Your task to perform on an android device: uninstall "Pinterest" Image 0: 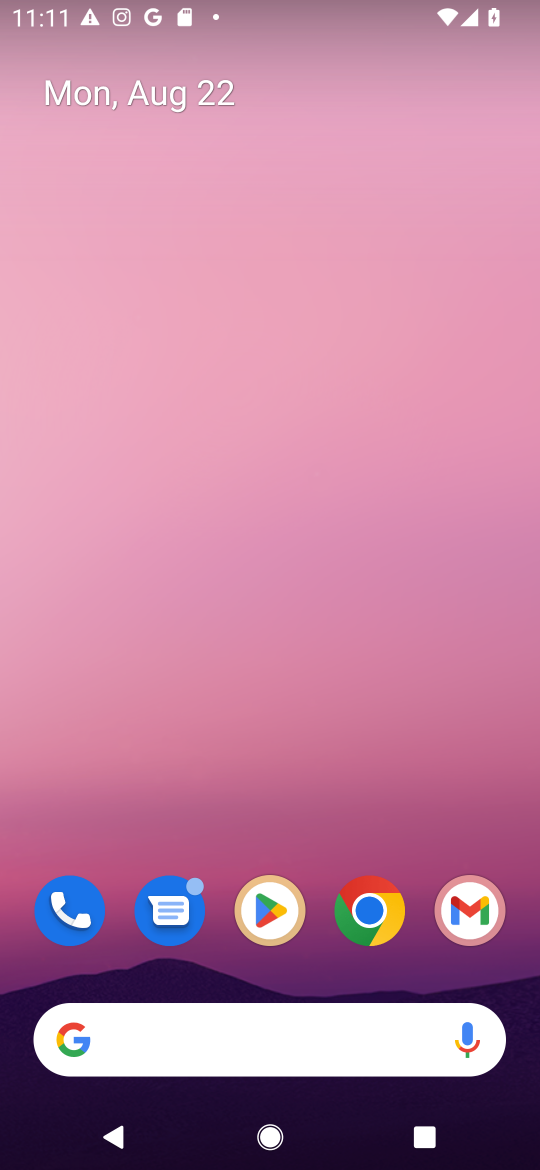
Step 0: click (246, 924)
Your task to perform on an android device: uninstall "Pinterest" Image 1: 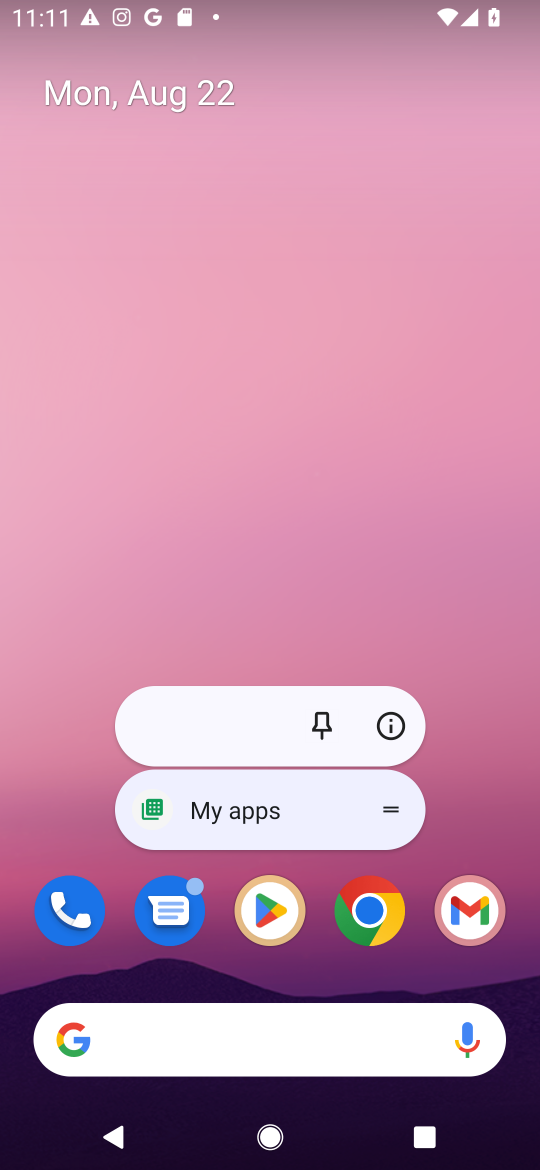
Step 1: click (272, 924)
Your task to perform on an android device: uninstall "Pinterest" Image 2: 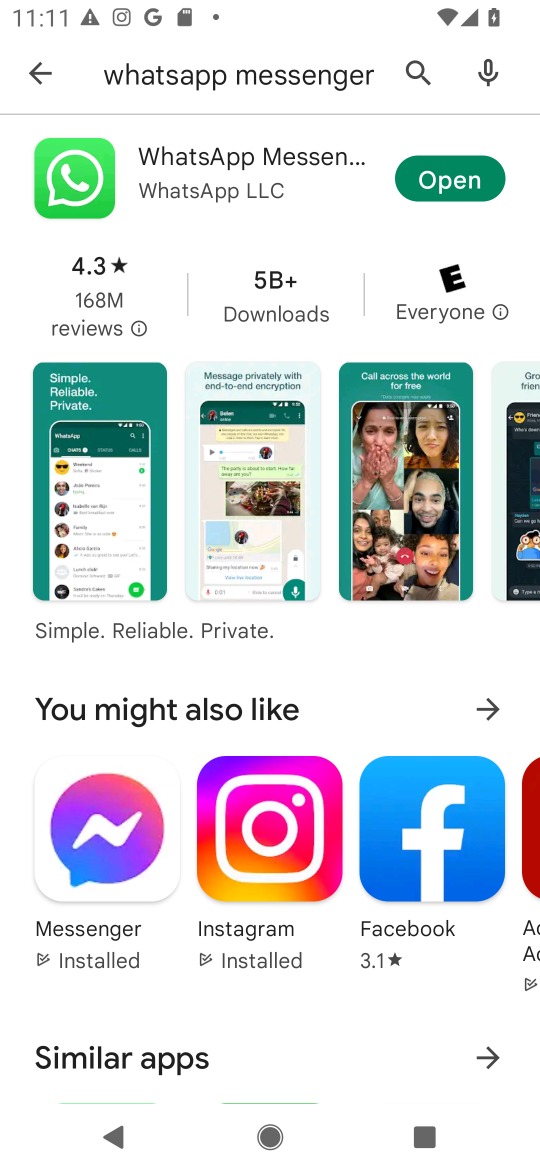
Step 2: click (415, 68)
Your task to perform on an android device: uninstall "Pinterest" Image 3: 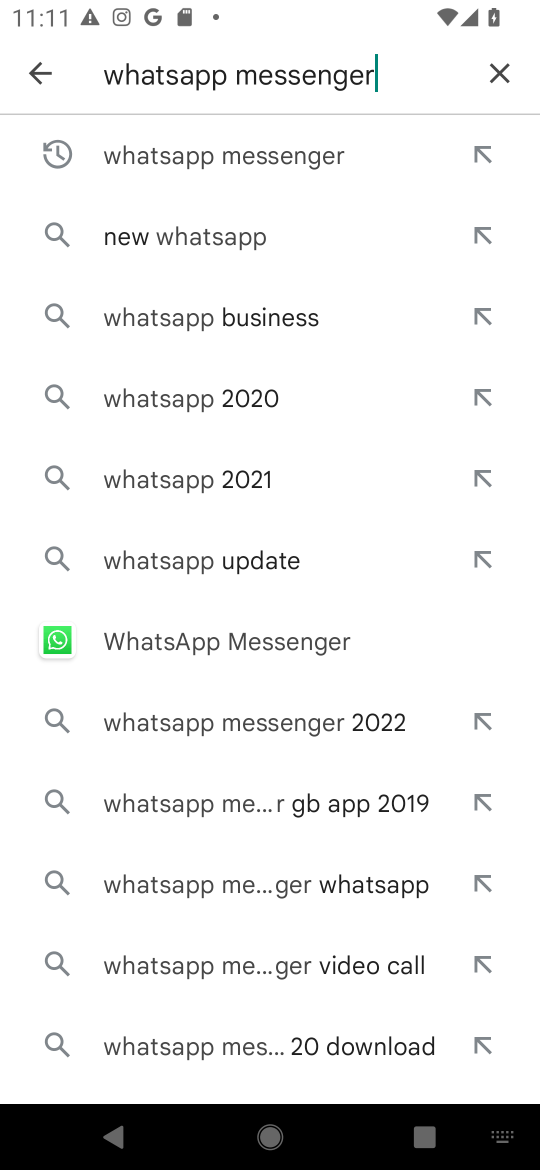
Step 3: click (488, 68)
Your task to perform on an android device: uninstall "Pinterest" Image 4: 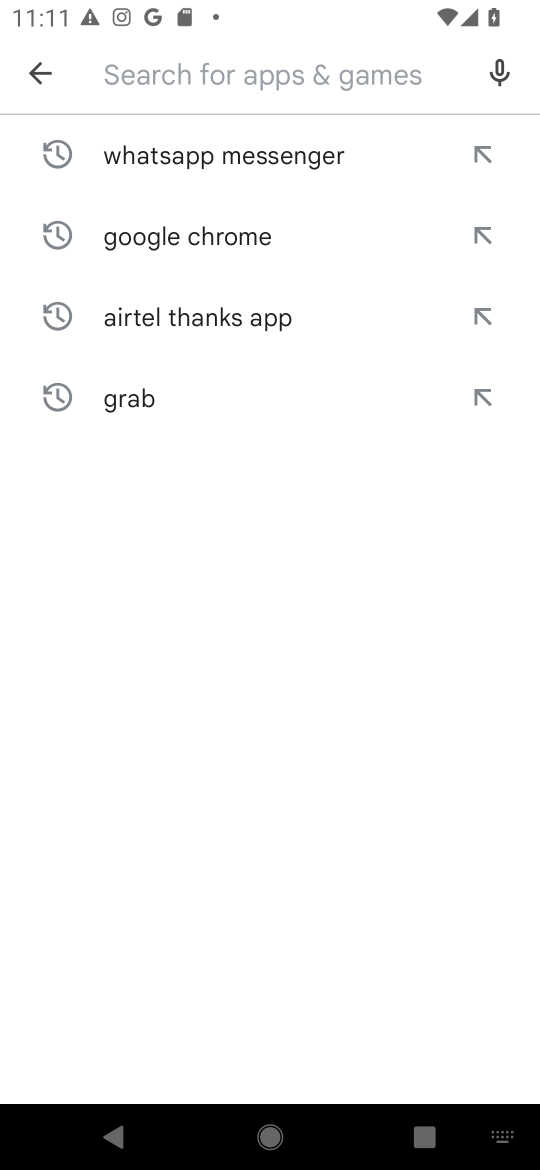
Step 4: type "Pinterest"
Your task to perform on an android device: uninstall "Pinterest" Image 5: 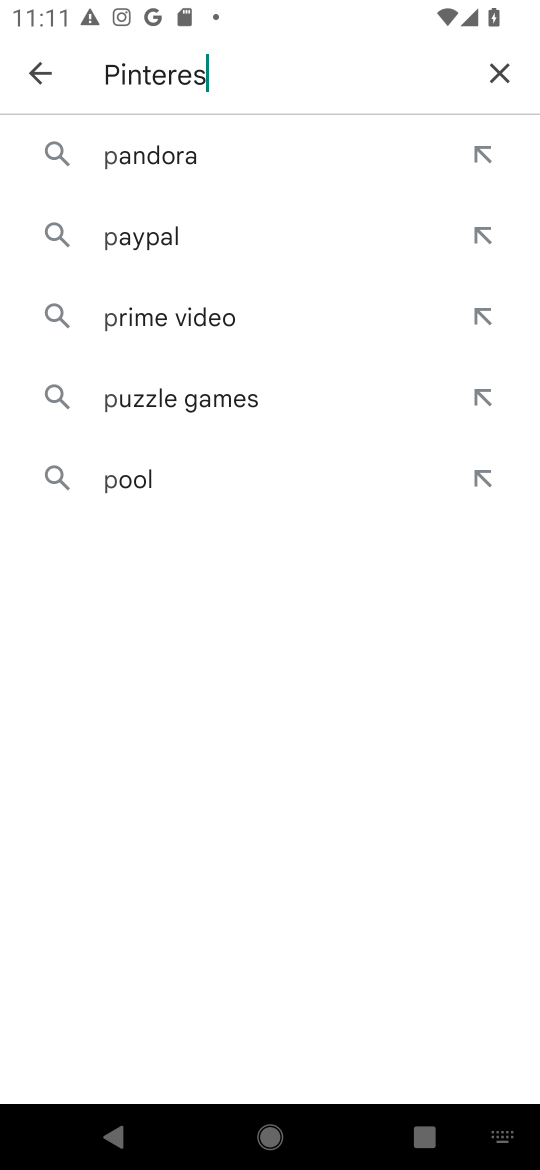
Step 5: type ""
Your task to perform on an android device: uninstall "Pinterest" Image 6: 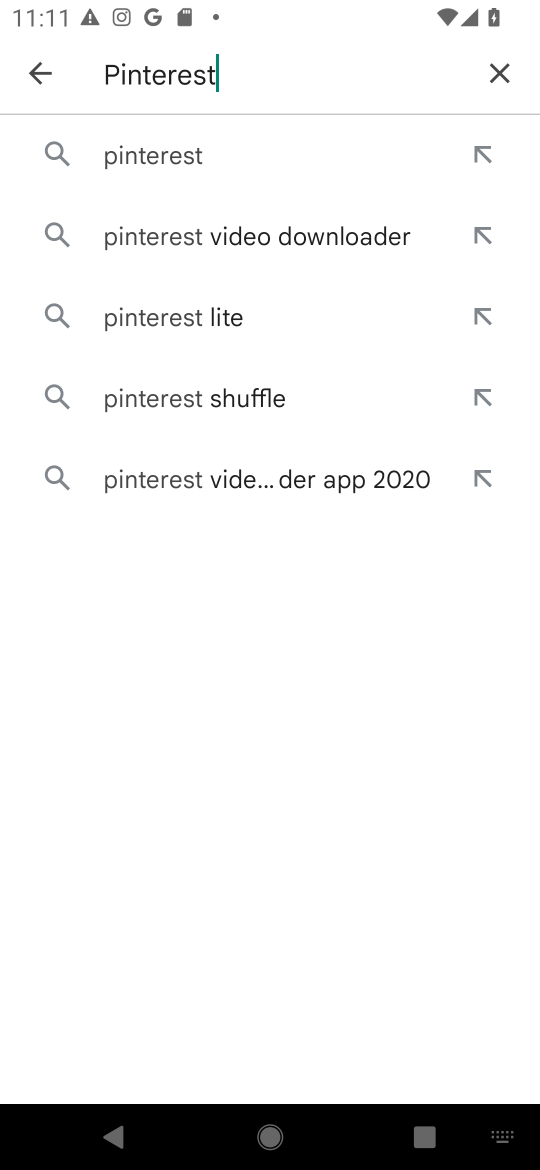
Step 6: click (211, 148)
Your task to perform on an android device: uninstall "Pinterest" Image 7: 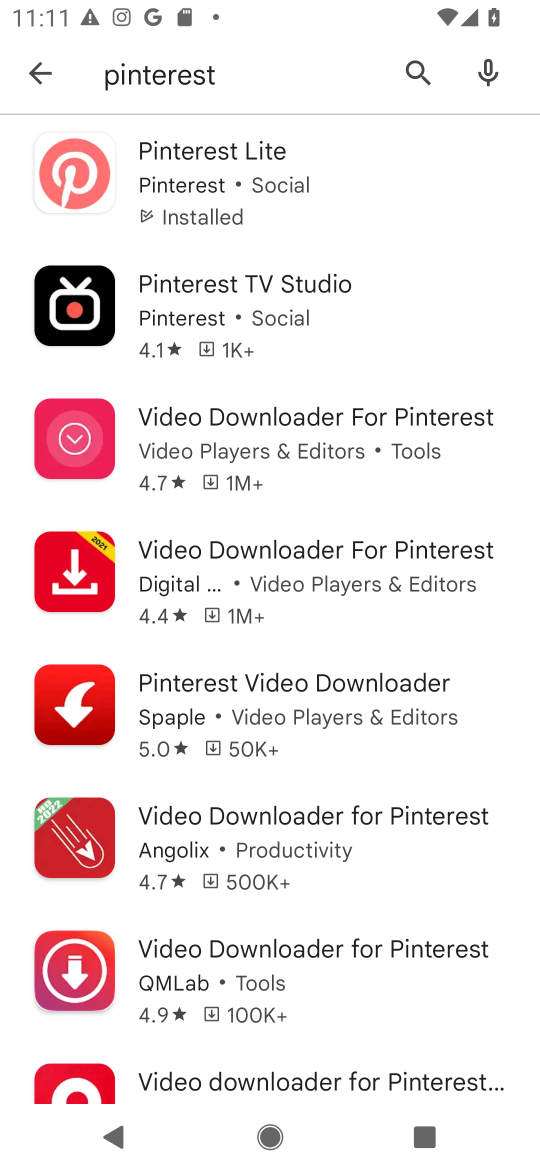
Step 7: click (266, 150)
Your task to perform on an android device: uninstall "Pinterest" Image 8: 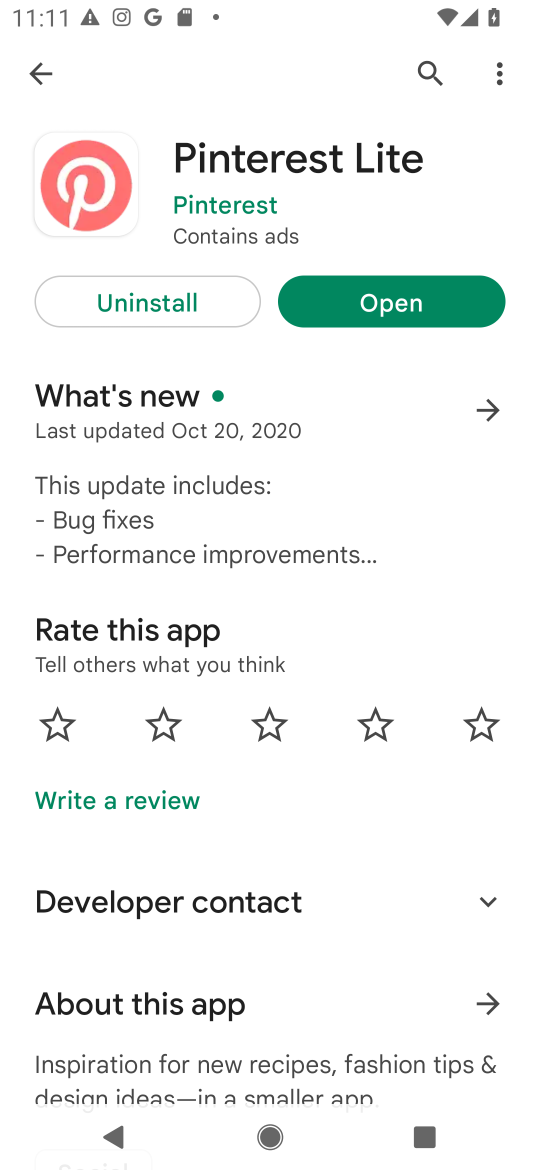
Step 8: click (194, 291)
Your task to perform on an android device: uninstall "Pinterest" Image 9: 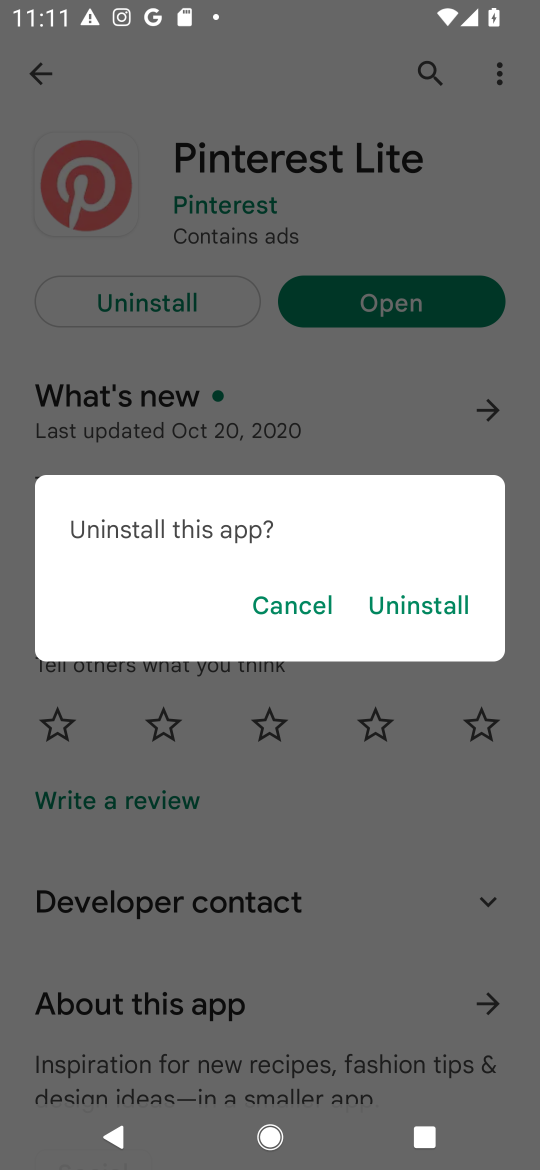
Step 9: click (434, 607)
Your task to perform on an android device: uninstall "Pinterest" Image 10: 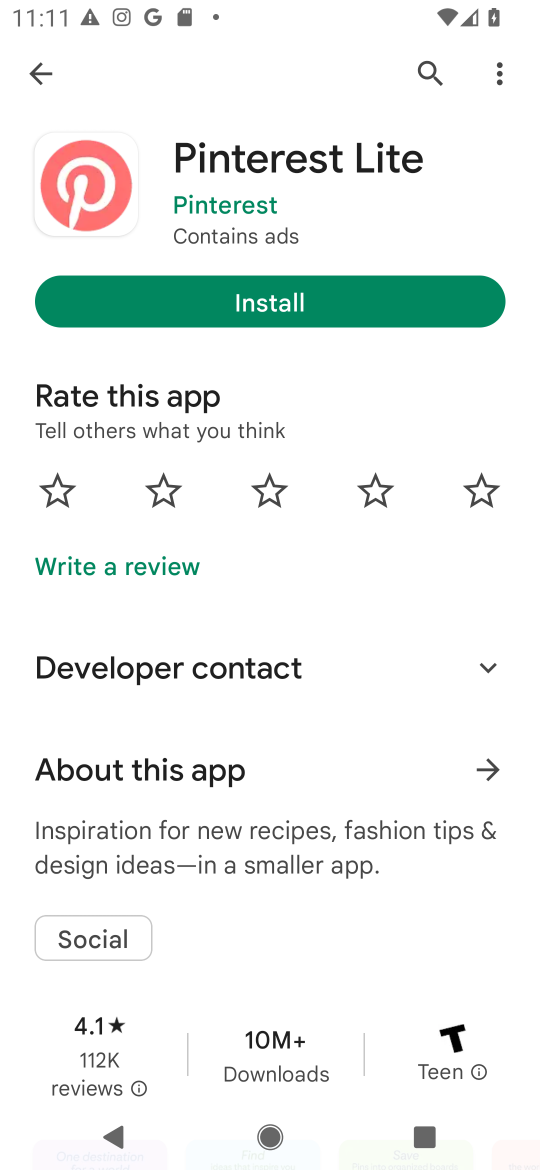
Step 10: task complete